Your task to perform on an android device: turn on sleep mode Image 0: 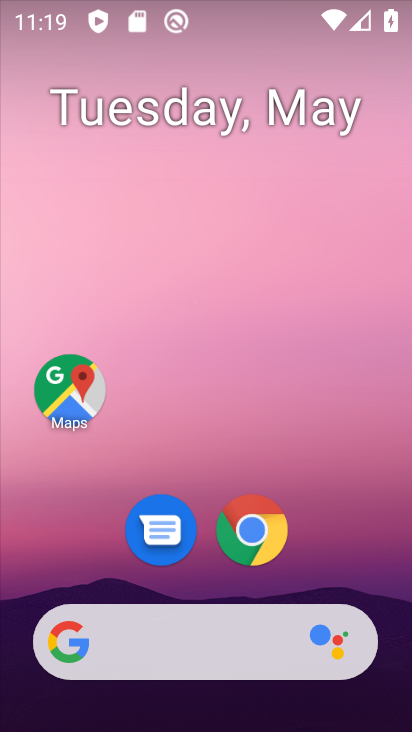
Step 0: drag from (212, 569) to (329, 2)
Your task to perform on an android device: turn on sleep mode Image 1: 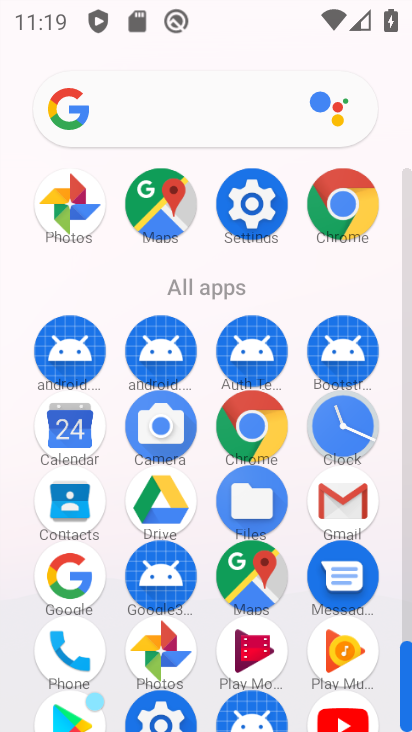
Step 1: click (253, 190)
Your task to perform on an android device: turn on sleep mode Image 2: 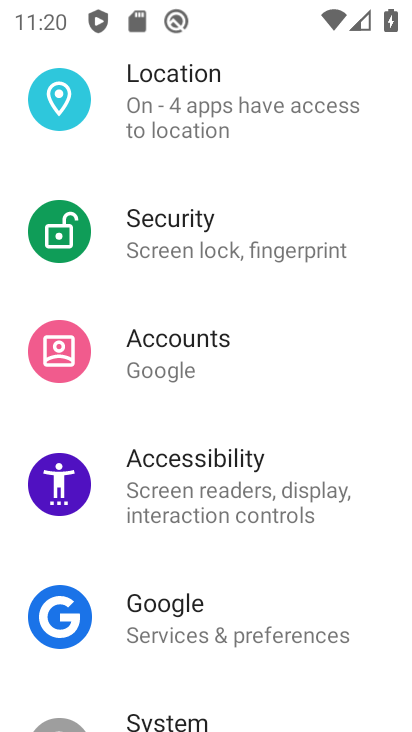
Step 2: drag from (244, 196) to (202, 601)
Your task to perform on an android device: turn on sleep mode Image 3: 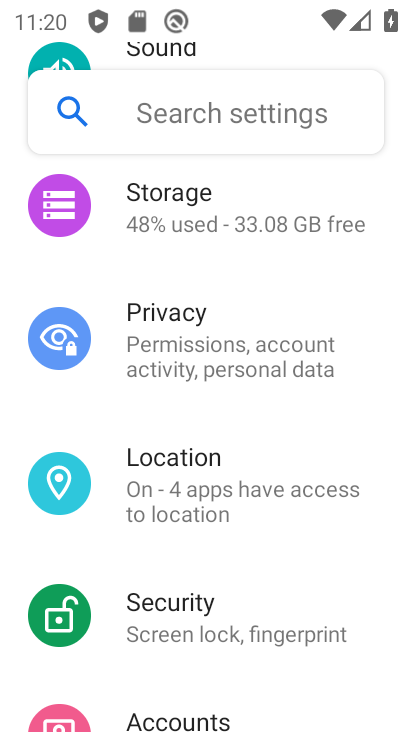
Step 3: drag from (264, 183) to (242, 637)
Your task to perform on an android device: turn on sleep mode Image 4: 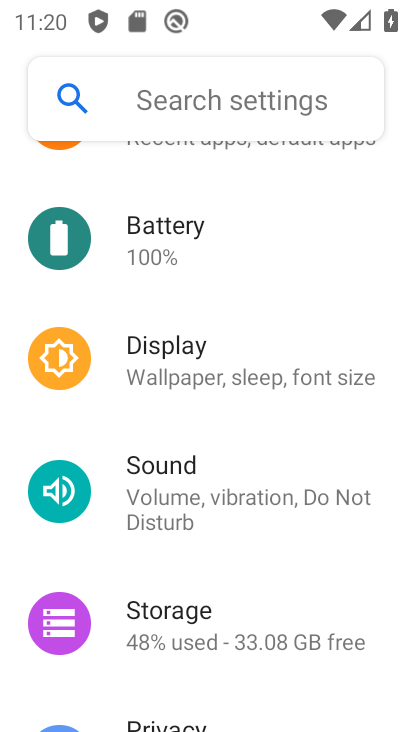
Step 4: click (218, 373)
Your task to perform on an android device: turn on sleep mode Image 5: 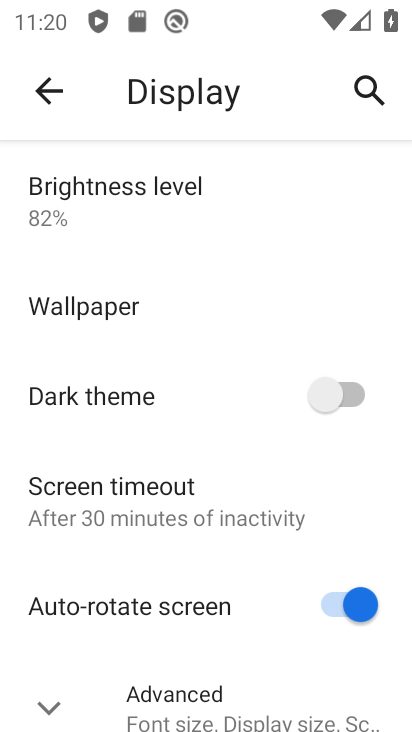
Step 5: task complete